Your task to perform on an android device: turn on airplane mode Image 0: 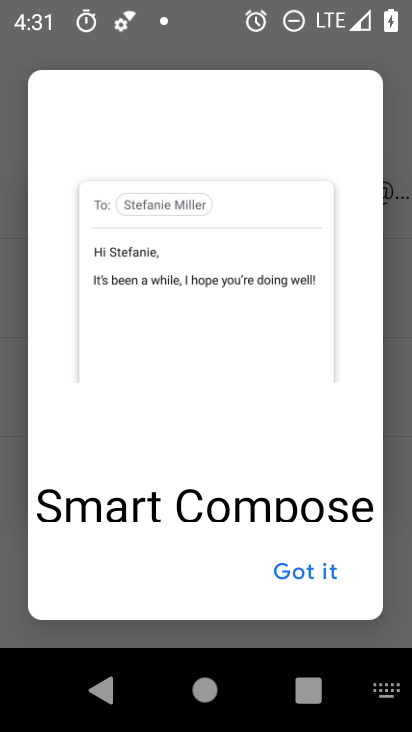
Step 0: press home button
Your task to perform on an android device: turn on airplane mode Image 1: 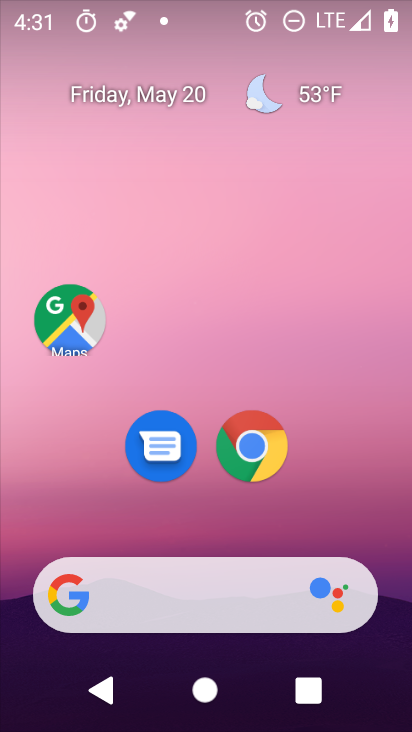
Step 1: drag from (377, 480) to (364, 55)
Your task to perform on an android device: turn on airplane mode Image 2: 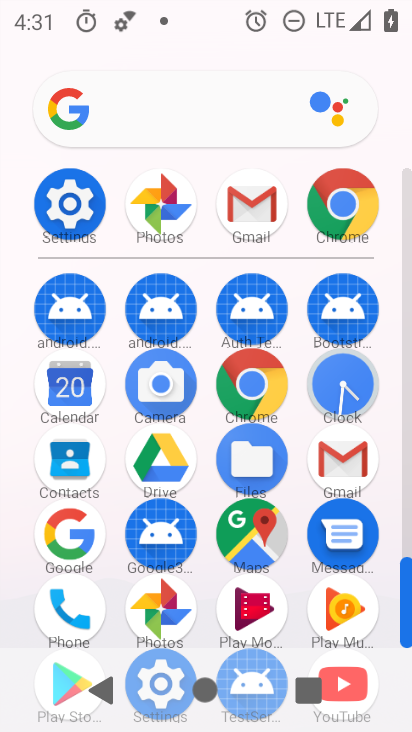
Step 2: click (48, 226)
Your task to perform on an android device: turn on airplane mode Image 3: 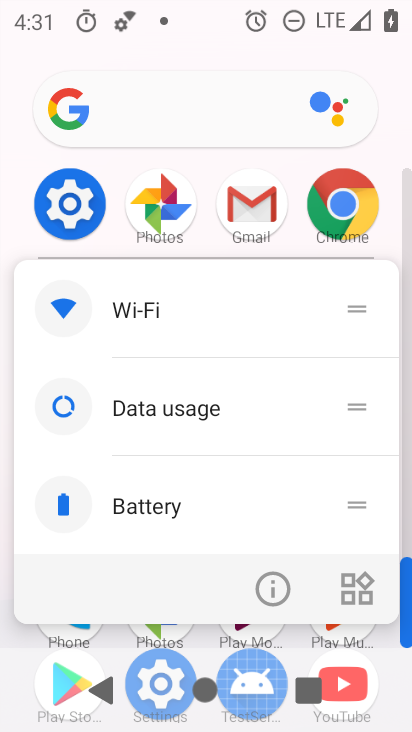
Step 3: click (69, 220)
Your task to perform on an android device: turn on airplane mode Image 4: 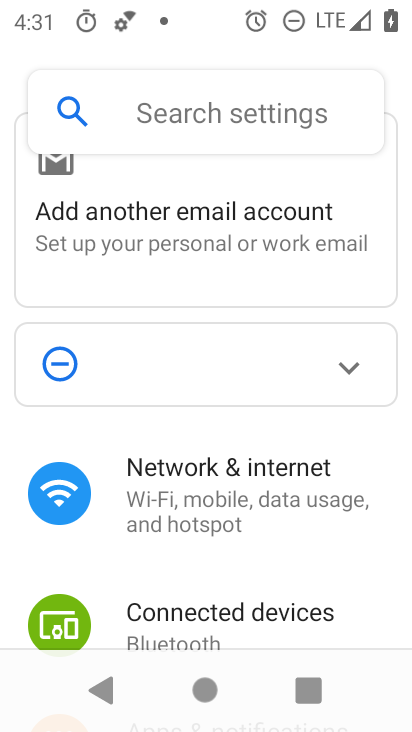
Step 4: click (281, 479)
Your task to perform on an android device: turn on airplane mode Image 5: 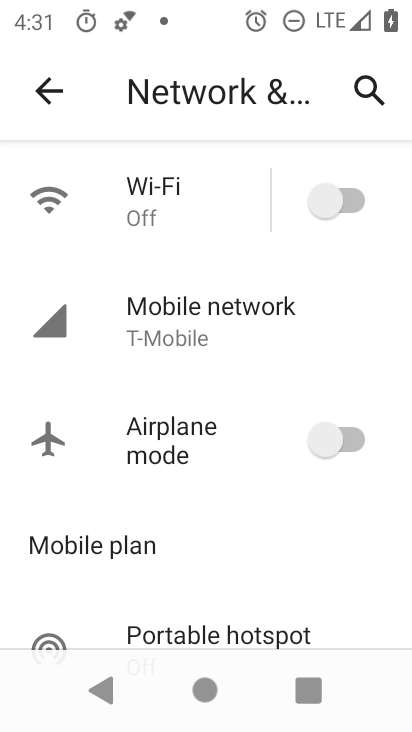
Step 5: drag from (248, 590) to (244, 214)
Your task to perform on an android device: turn on airplane mode Image 6: 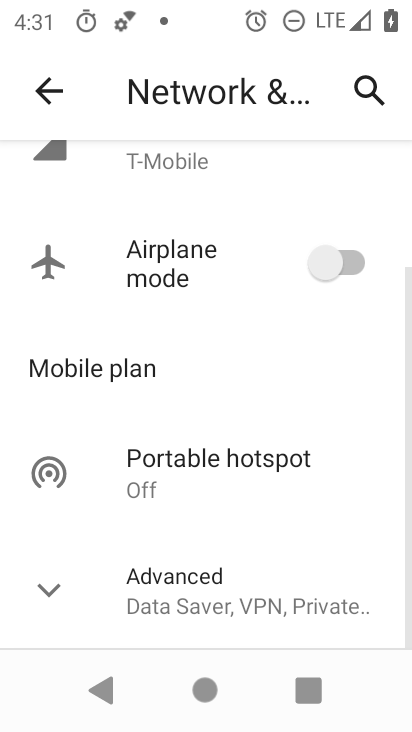
Step 6: drag from (232, 171) to (248, 571)
Your task to perform on an android device: turn on airplane mode Image 7: 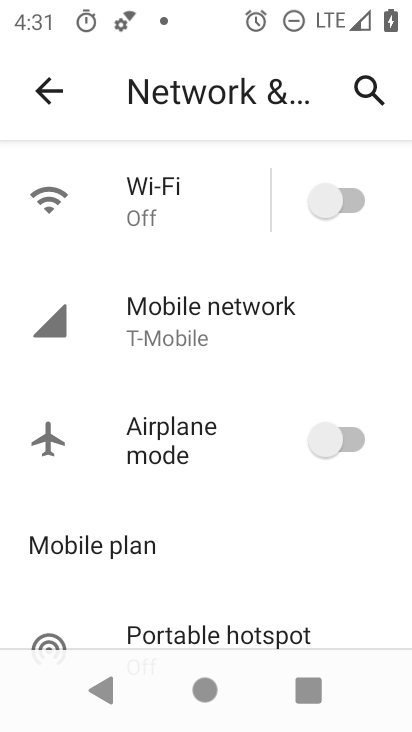
Step 7: drag from (232, 320) to (238, 607)
Your task to perform on an android device: turn on airplane mode Image 8: 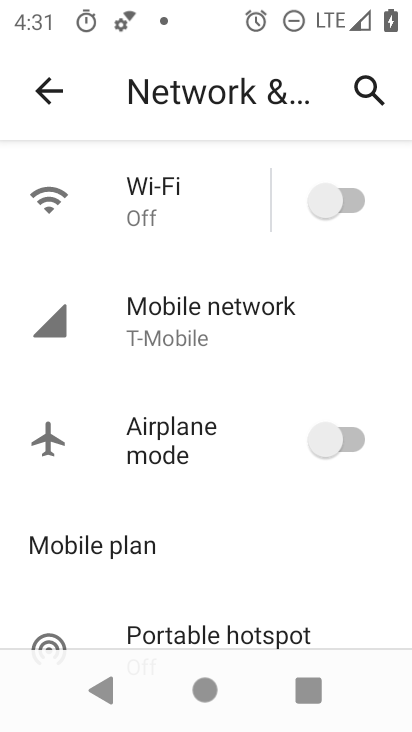
Step 8: drag from (231, 567) to (217, 418)
Your task to perform on an android device: turn on airplane mode Image 9: 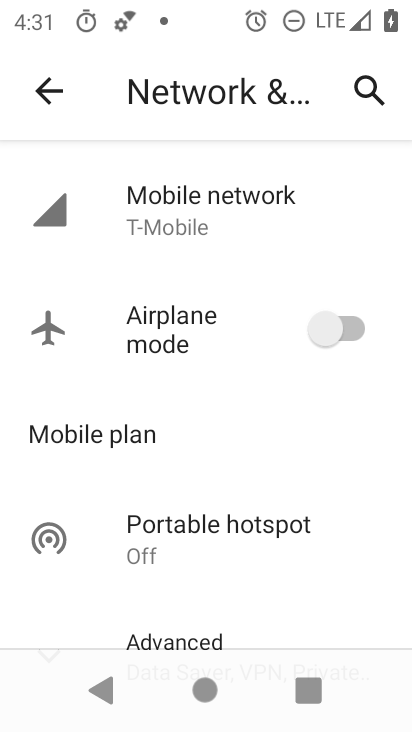
Step 9: click (341, 317)
Your task to perform on an android device: turn on airplane mode Image 10: 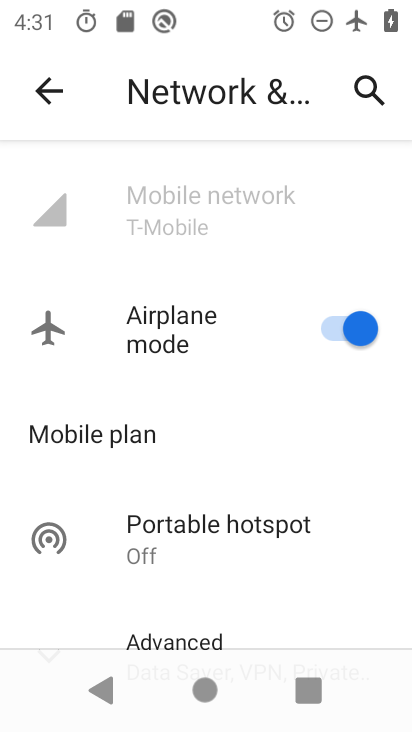
Step 10: task complete